Your task to perform on an android device: toggle notifications settings in the gmail app Image 0: 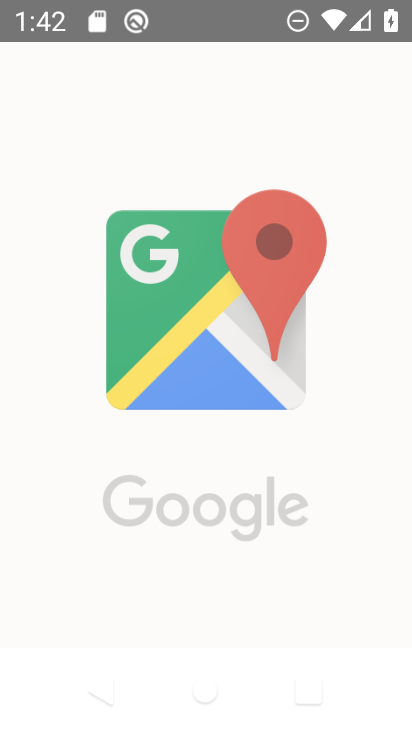
Step 0: drag from (162, 630) to (187, 291)
Your task to perform on an android device: toggle notifications settings in the gmail app Image 1: 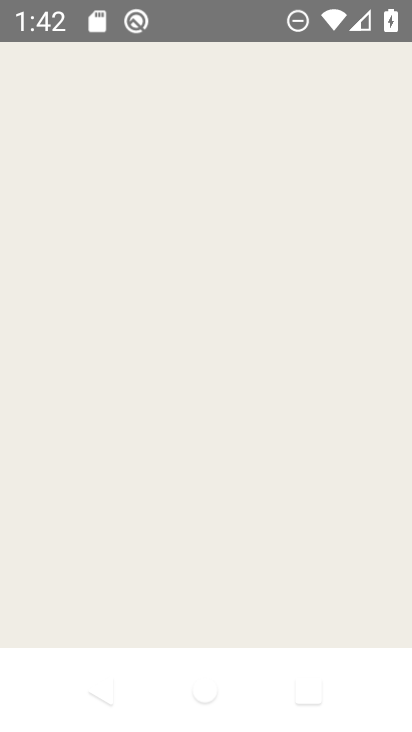
Step 1: press home button
Your task to perform on an android device: toggle notifications settings in the gmail app Image 2: 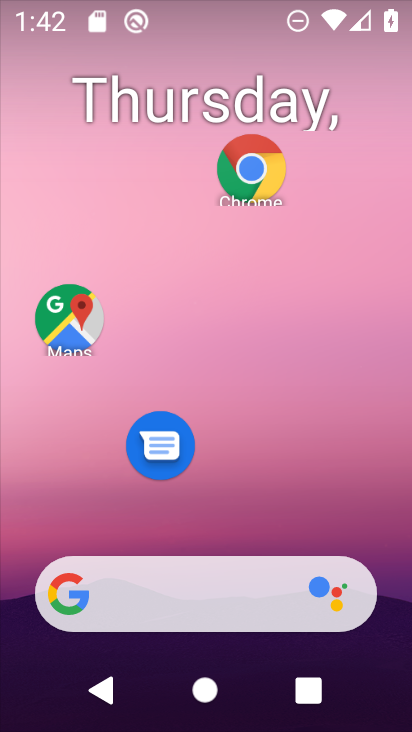
Step 2: drag from (230, 633) to (236, 175)
Your task to perform on an android device: toggle notifications settings in the gmail app Image 3: 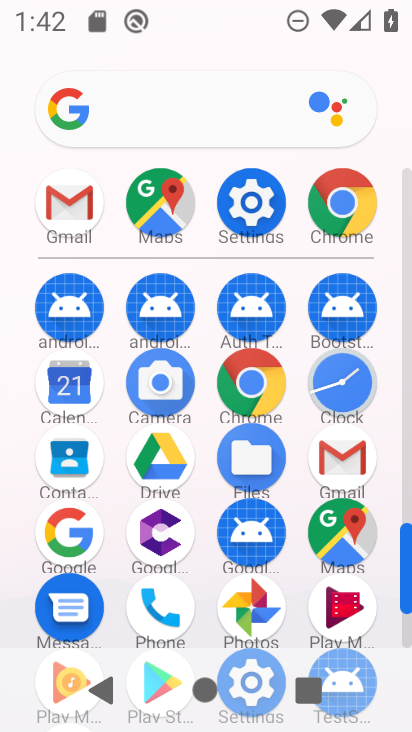
Step 3: click (340, 440)
Your task to perform on an android device: toggle notifications settings in the gmail app Image 4: 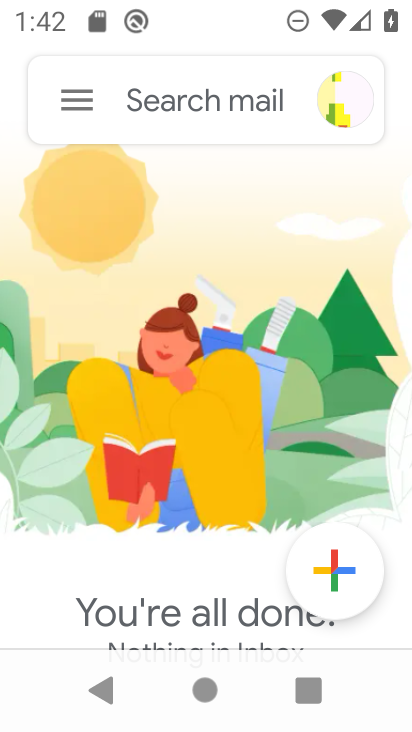
Step 4: click (76, 114)
Your task to perform on an android device: toggle notifications settings in the gmail app Image 5: 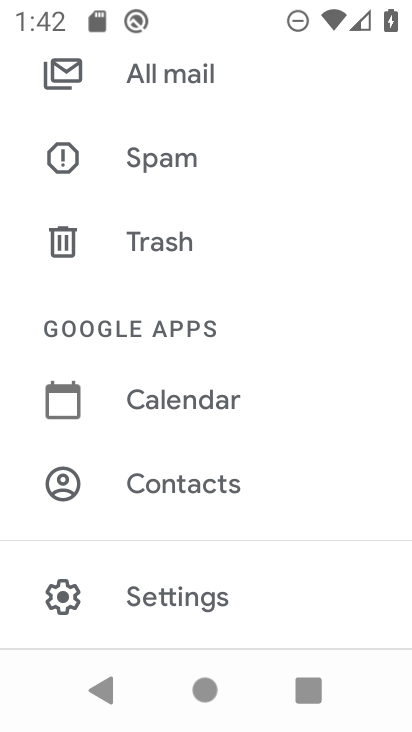
Step 5: click (163, 583)
Your task to perform on an android device: toggle notifications settings in the gmail app Image 6: 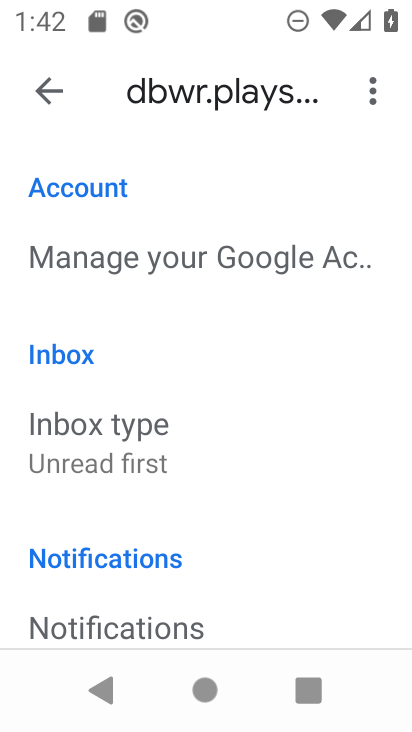
Step 6: drag from (137, 576) to (167, 457)
Your task to perform on an android device: toggle notifications settings in the gmail app Image 7: 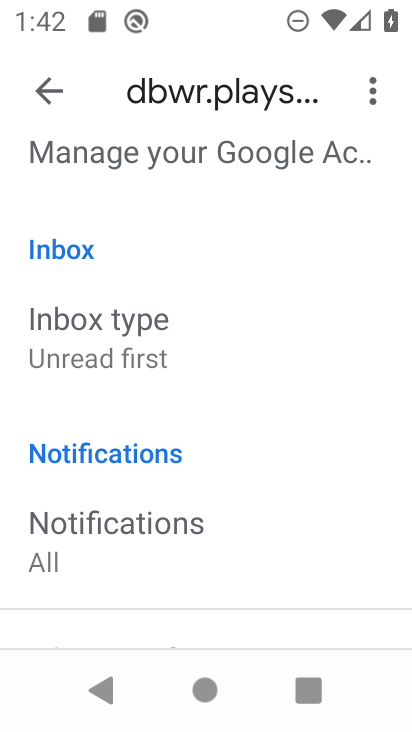
Step 7: click (92, 569)
Your task to perform on an android device: toggle notifications settings in the gmail app Image 8: 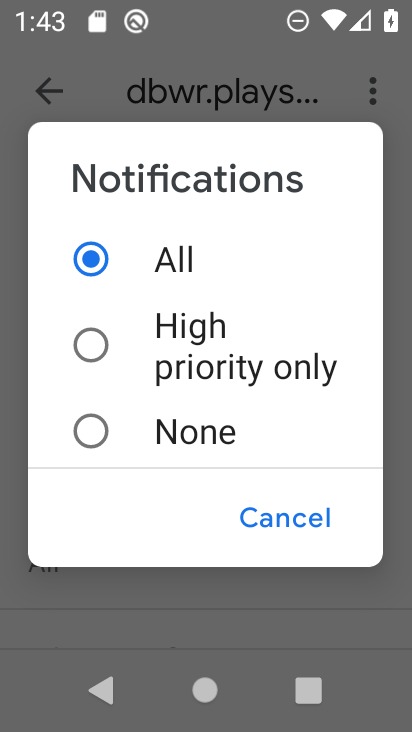
Step 8: task complete